Your task to perform on an android device: turn off notifications in google photos Image 0: 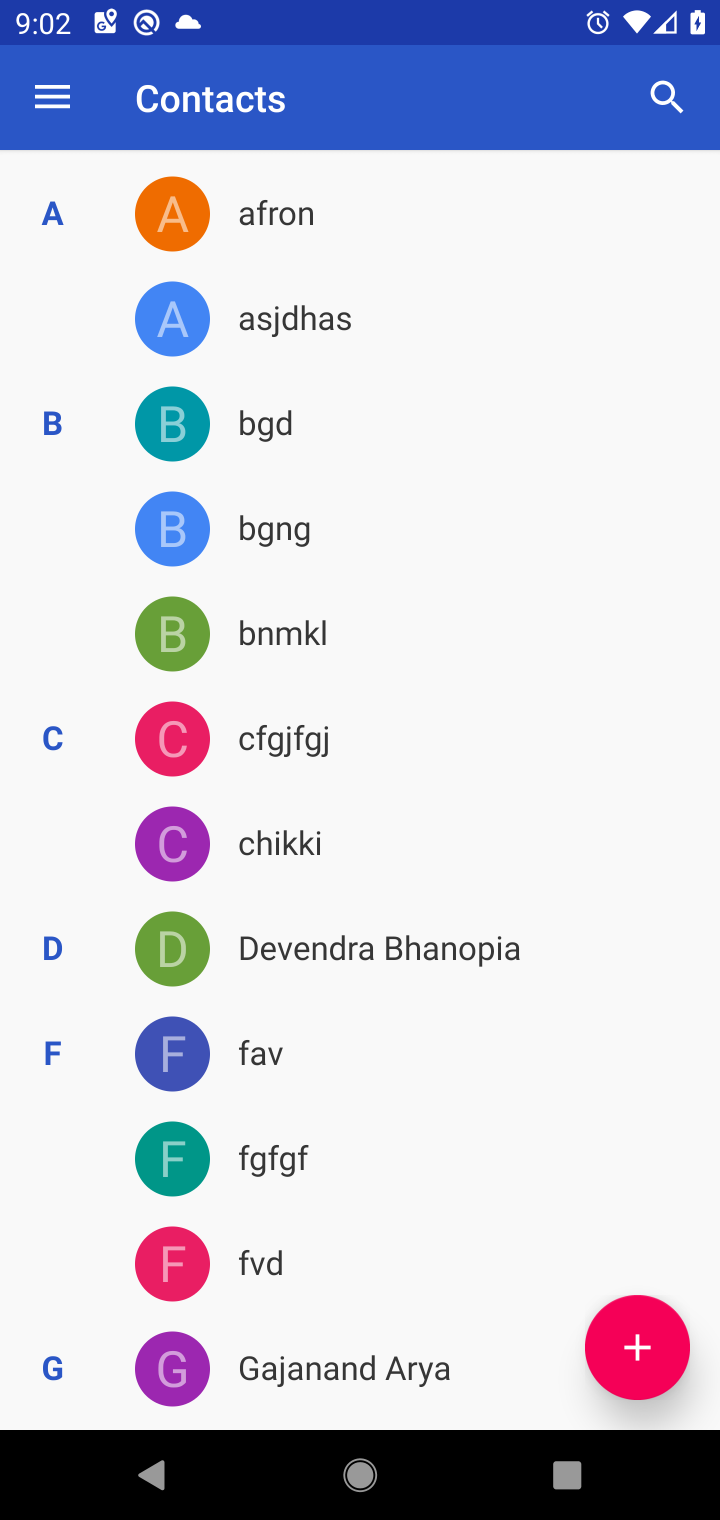
Step 0: press home button
Your task to perform on an android device: turn off notifications in google photos Image 1: 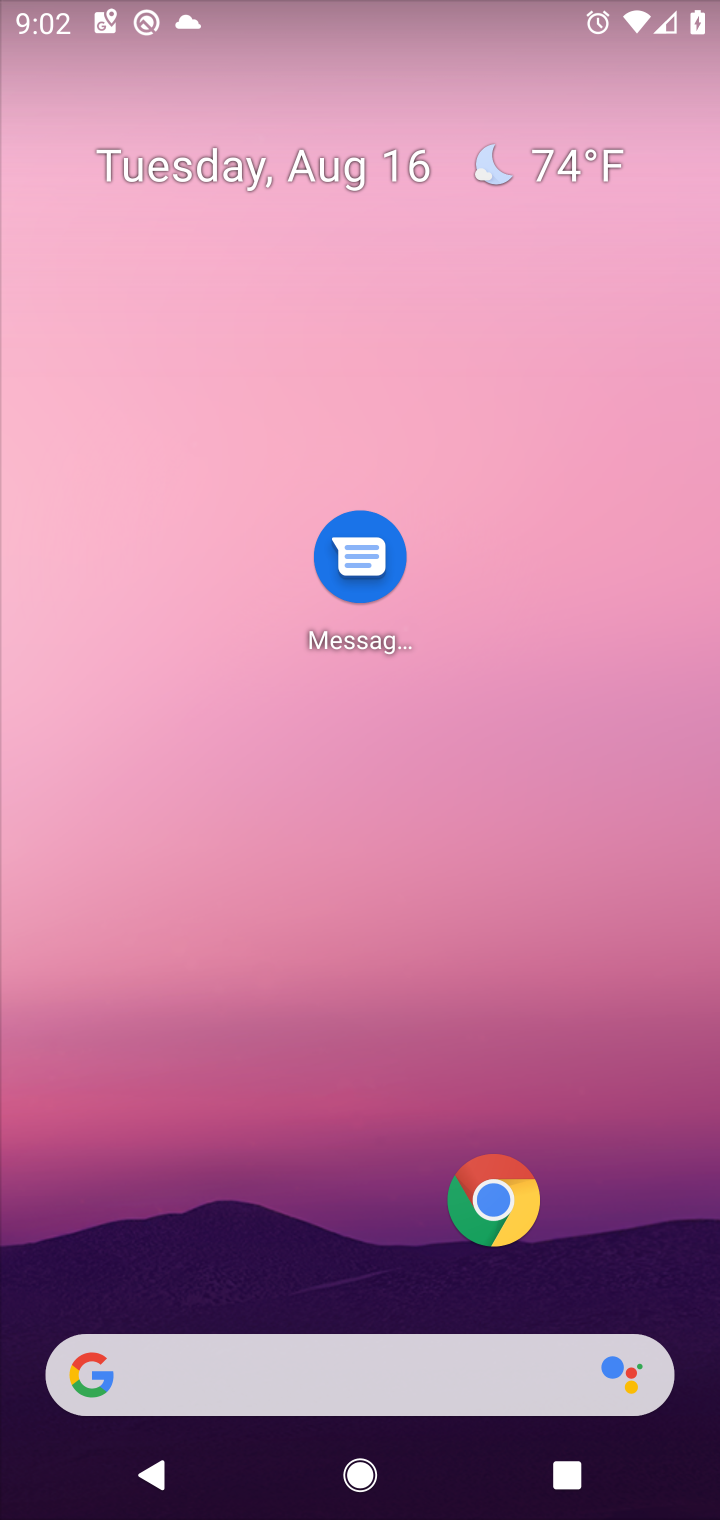
Step 1: drag from (142, 1280) to (318, 493)
Your task to perform on an android device: turn off notifications in google photos Image 2: 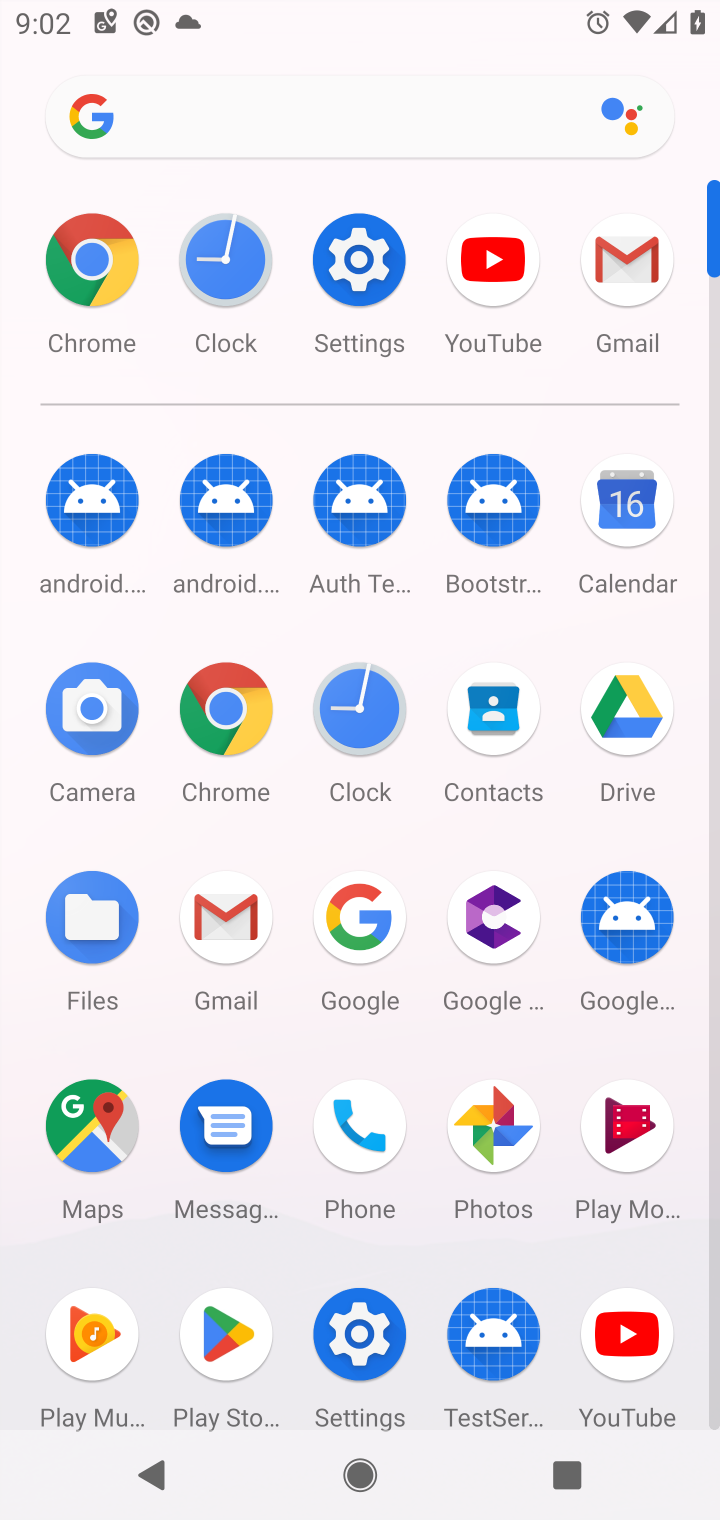
Step 2: click (503, 1147)
Your task to perform on an android device: turn off notifications in google photos Image 3: 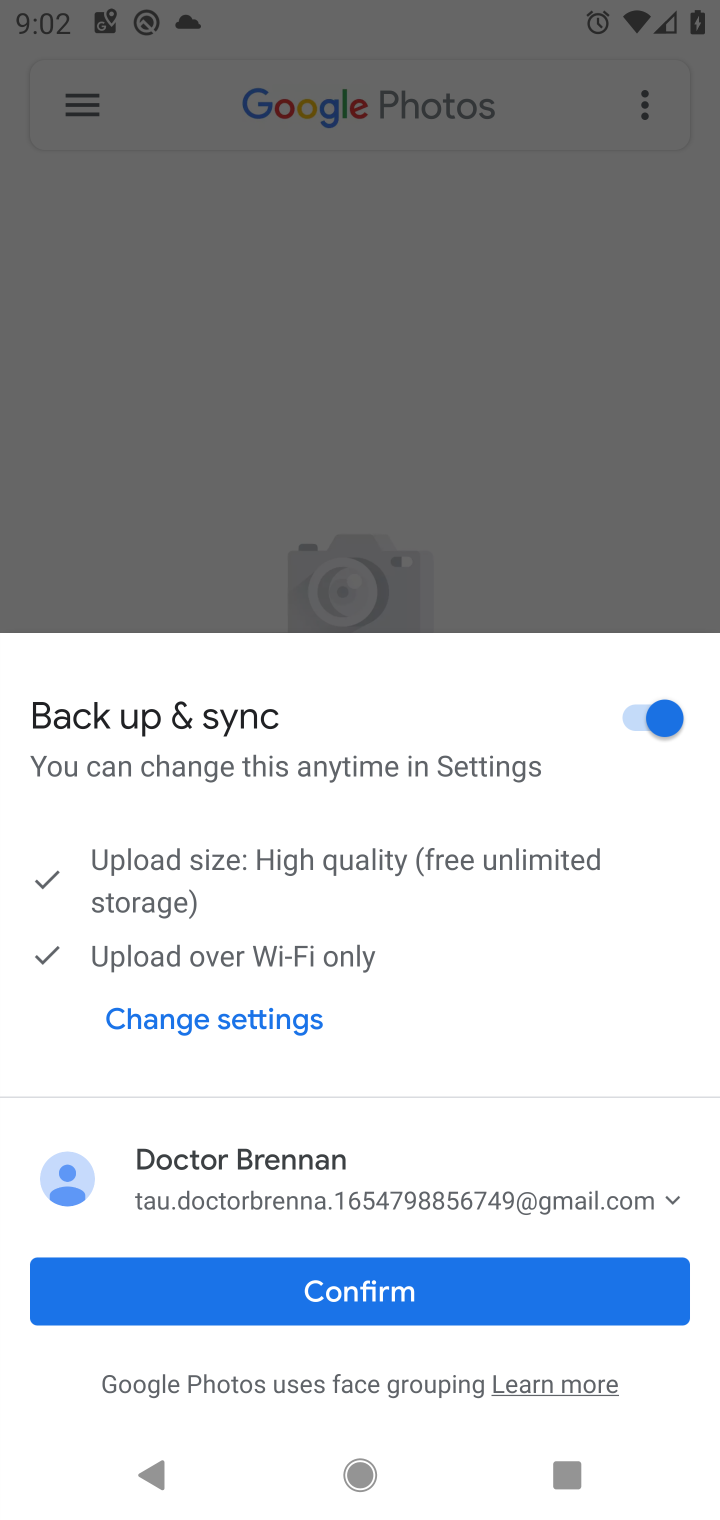
Step 3: click (376, 1312)
Your task to perform on an android device: turn off notifications in google photos Image 4: 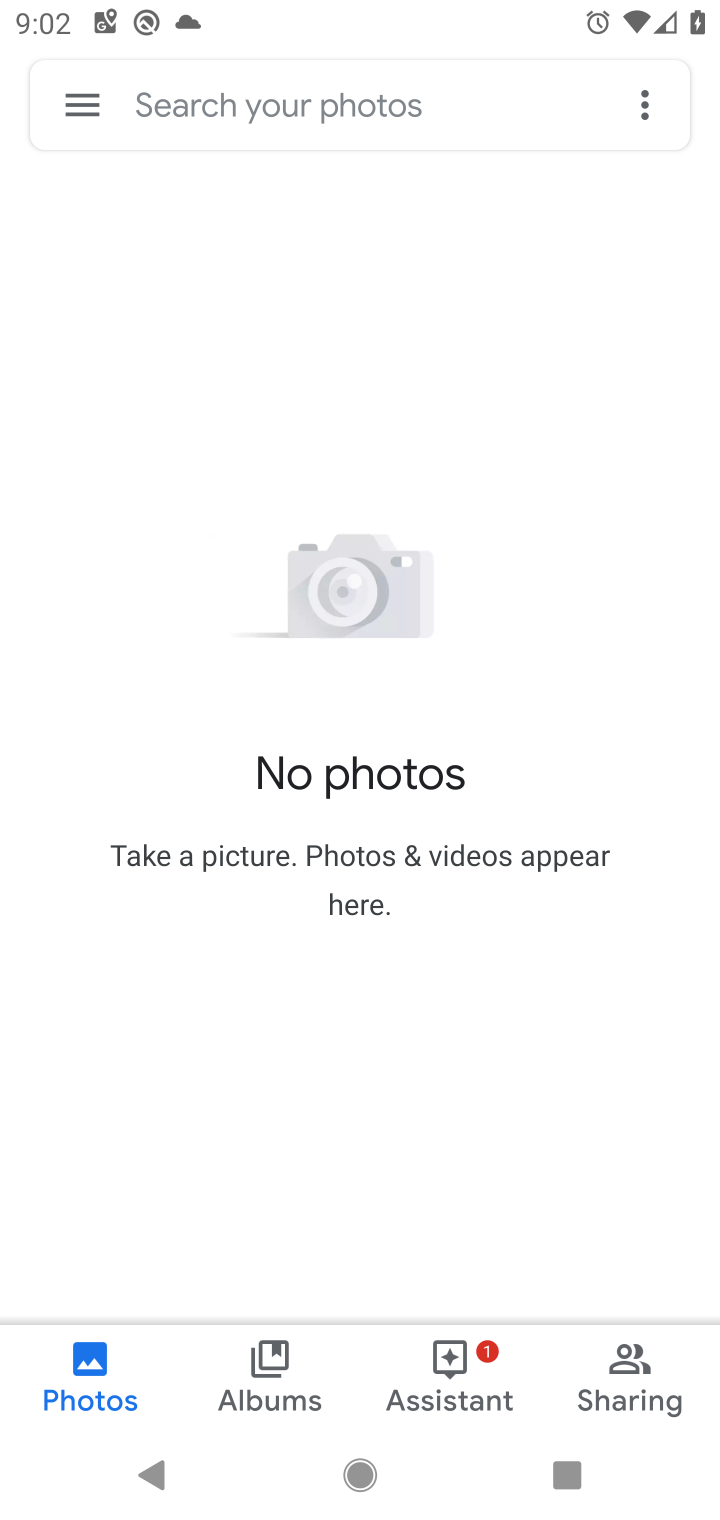
Step 4: click (96, 117)
Your task to perform on an android device: turn off notifications in google photos Image 5: 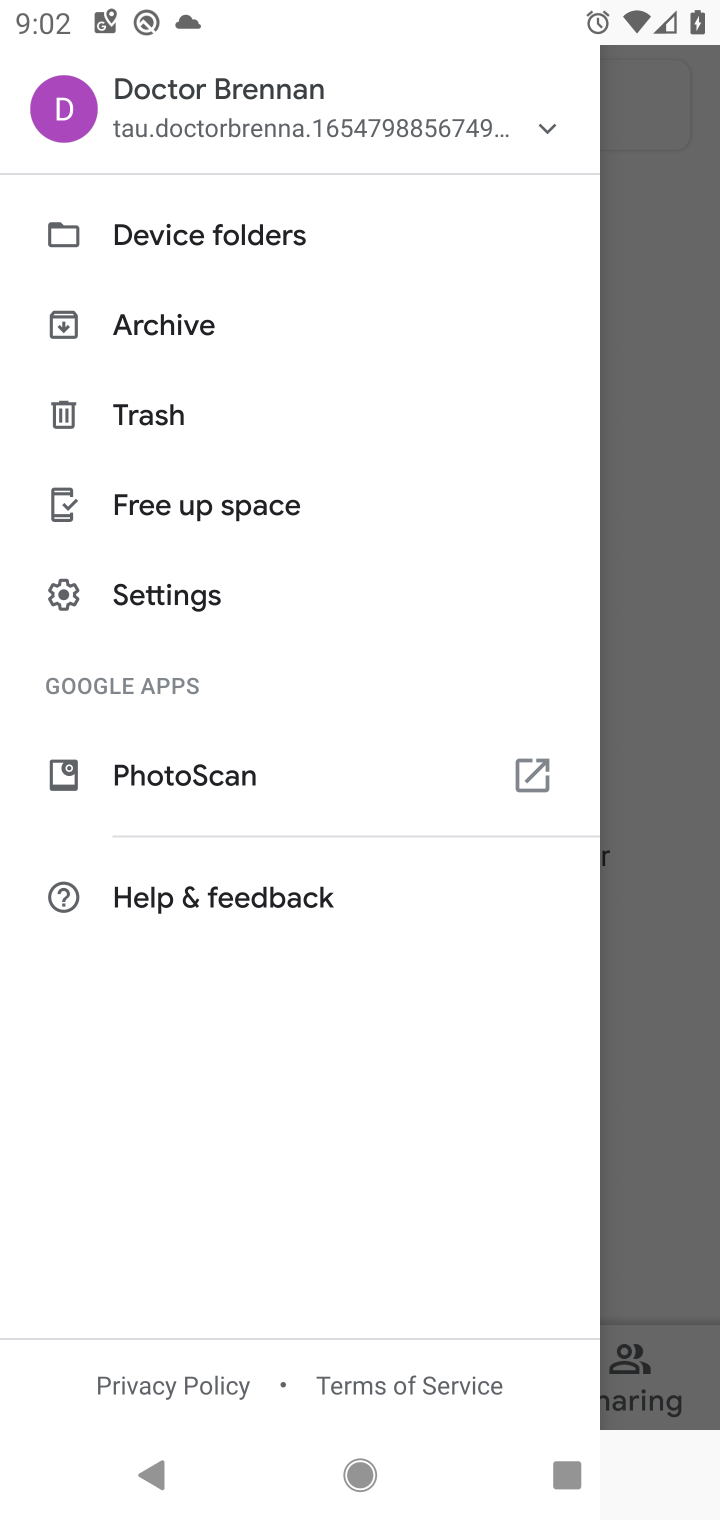
Step 5: click (188, 597)
Your task to perform on an android device: turn off notifications in google photos Image 6: 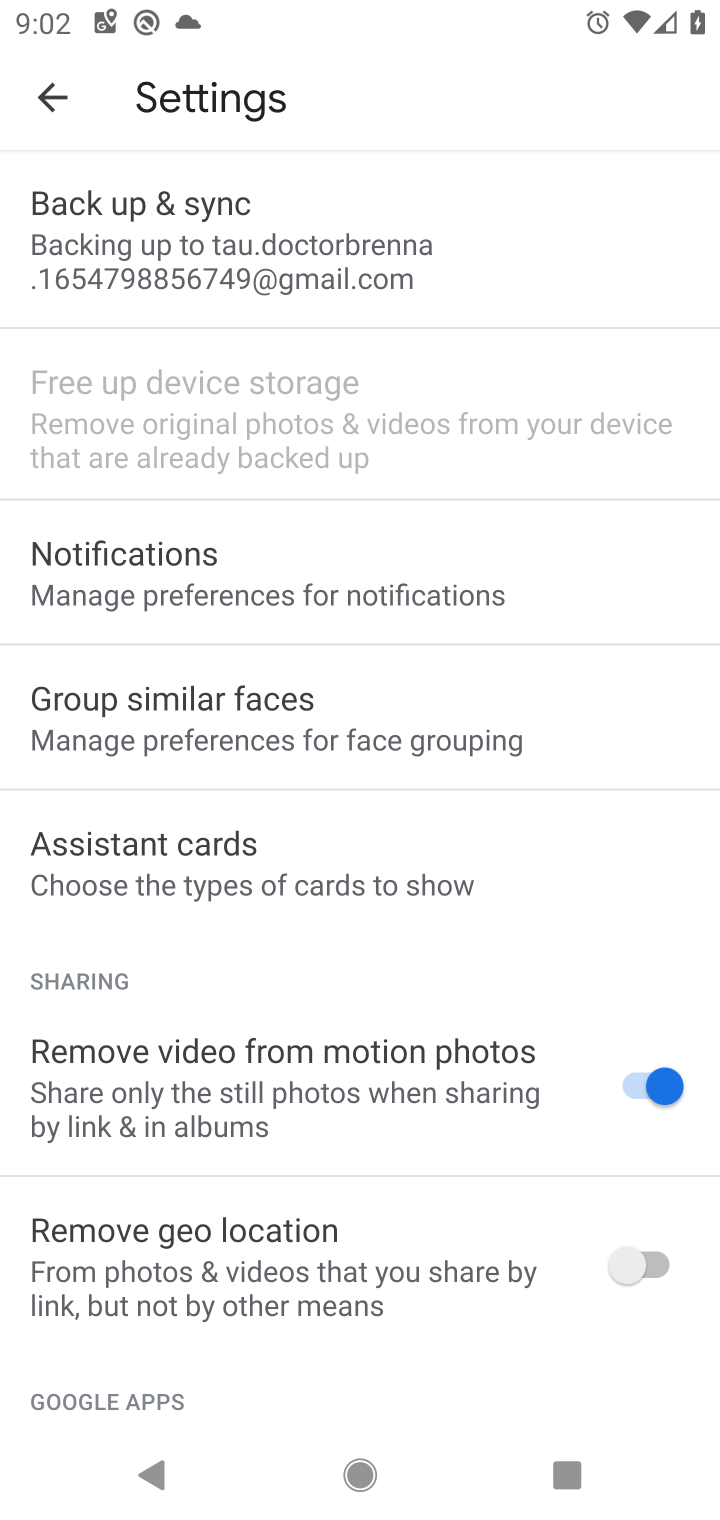
Step 6: click (188, 597)
Your task to perform on an android device: turn off notifications in google photos Image 7: 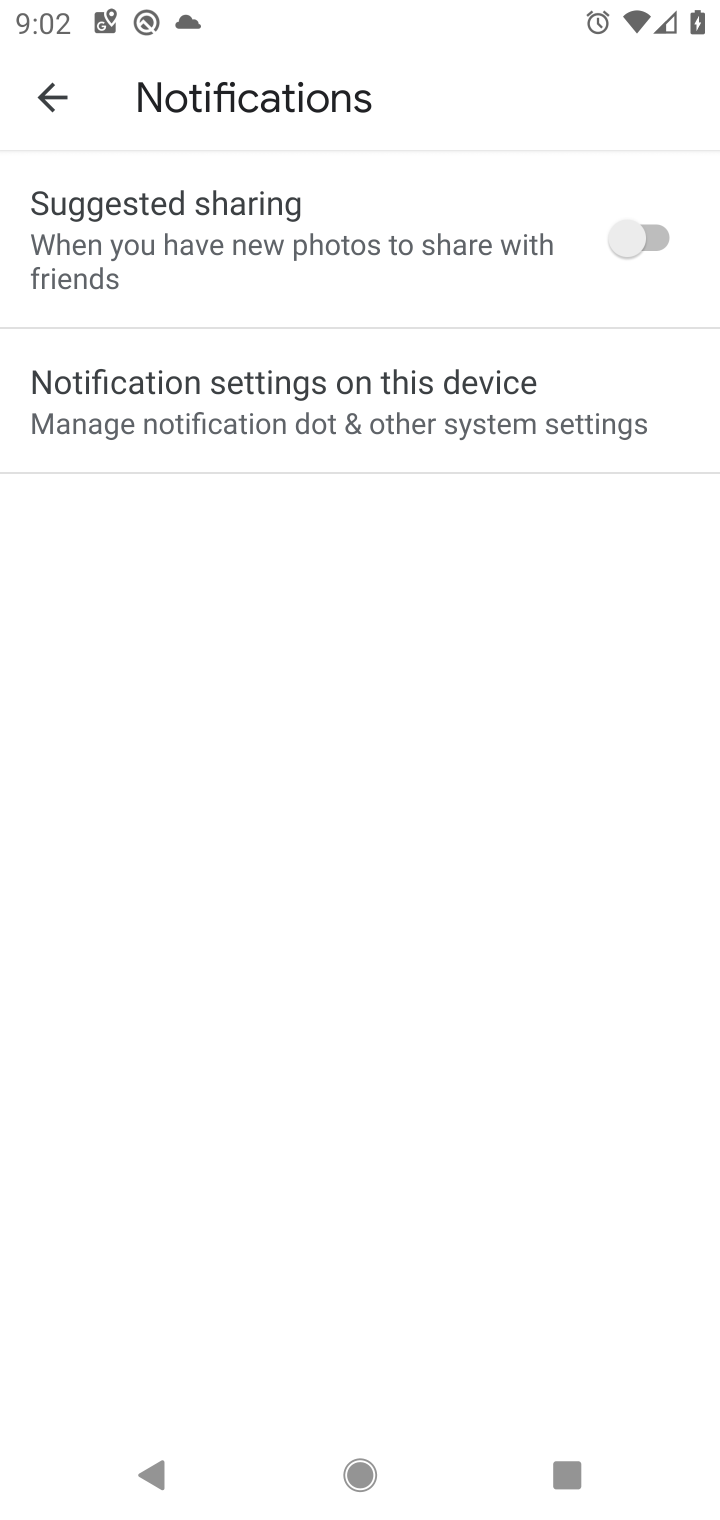
Step 7: click (630, 233)
Your task to perform on an android device: turn off notifications in google photos Image 8: 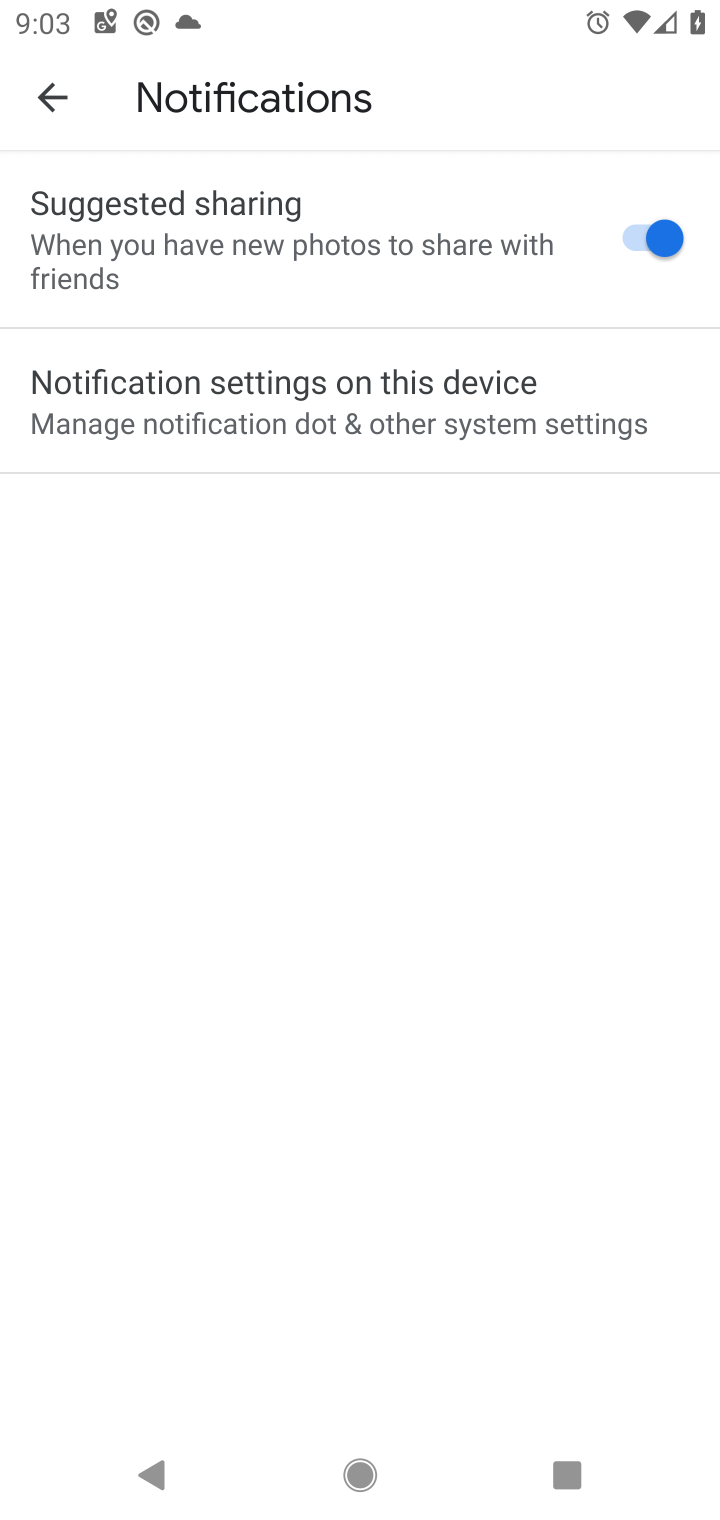
Step 8: click (630, 233)
Your task to perform on an android device: turn off notifications in google photos Image 9: 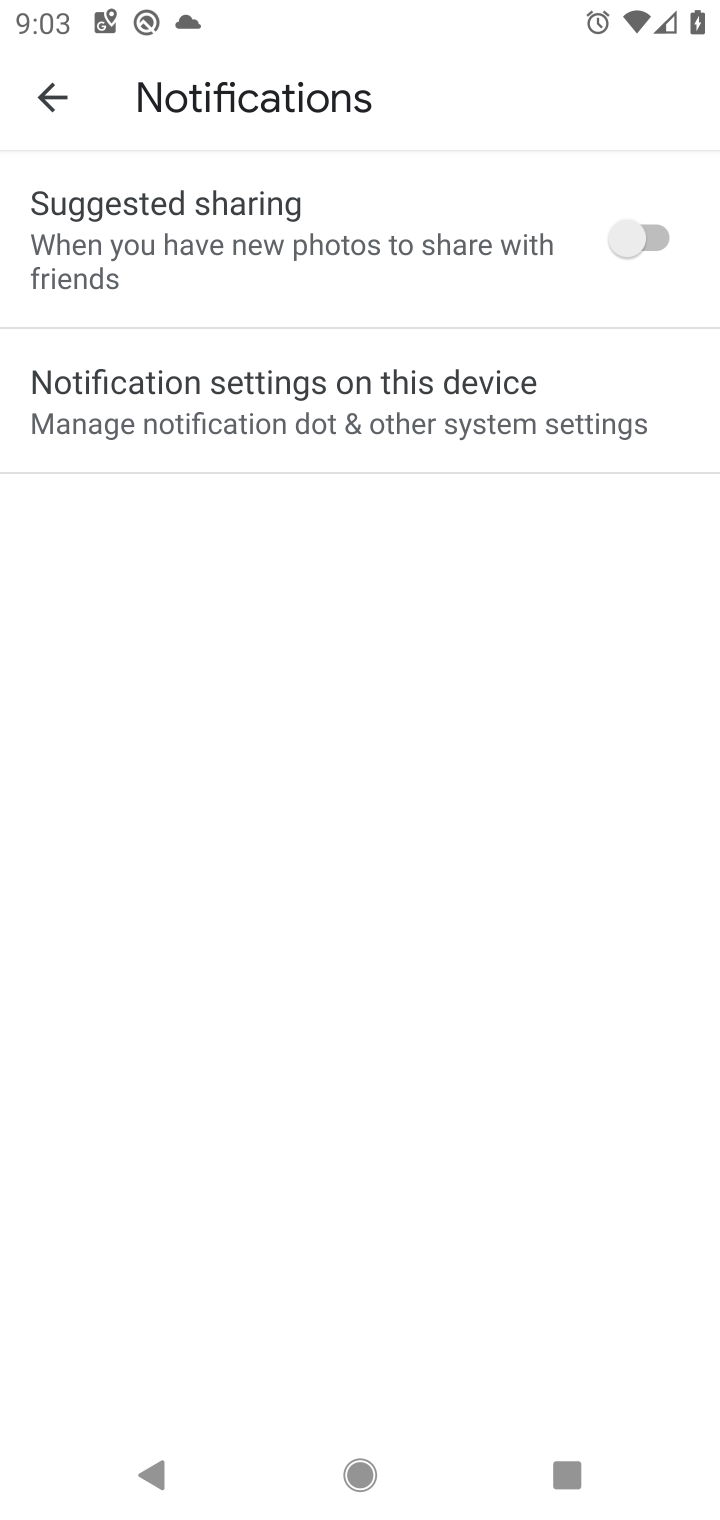
Step 9: task complete